Your task to perform on an android device: search for starred emails in the gmail app Image 0: 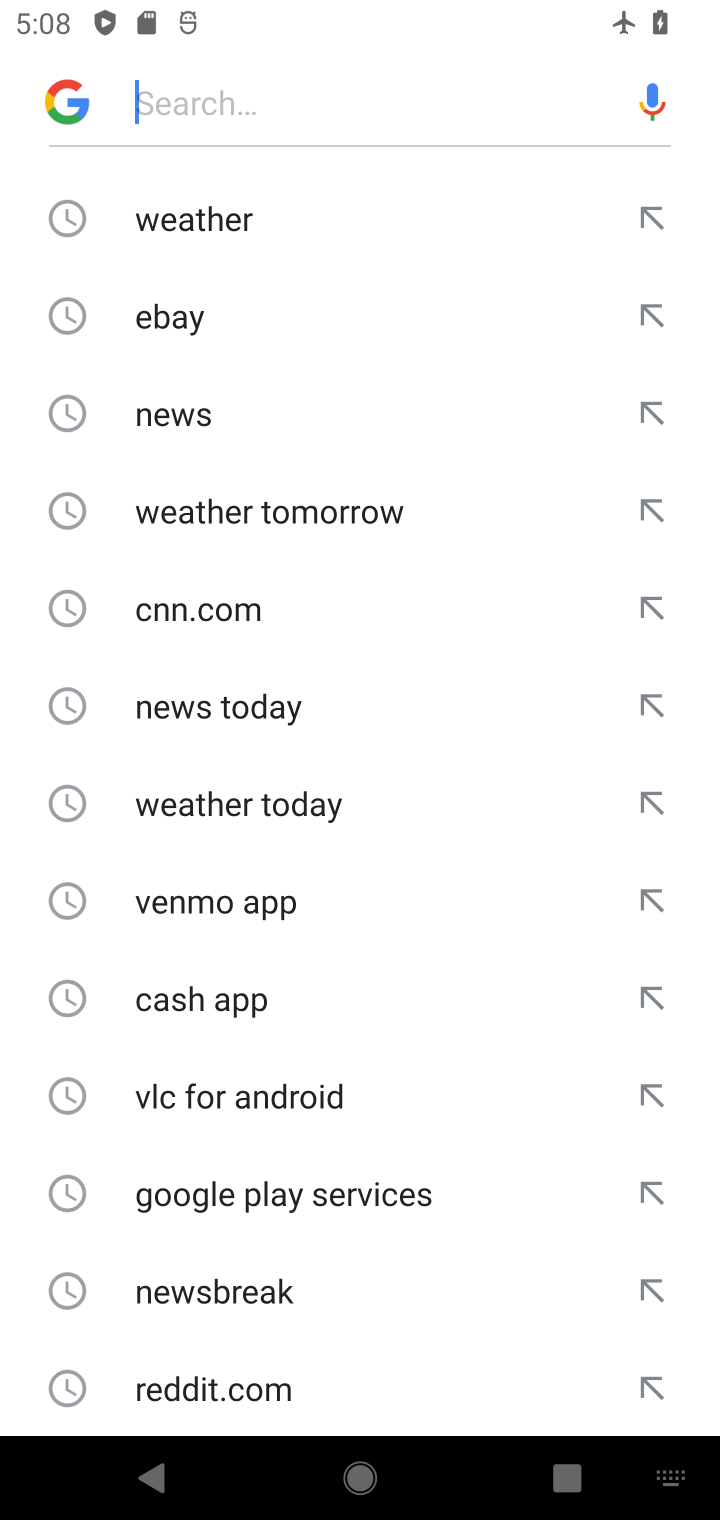
Step 0: press back button
Your task to perform on an android device: search for starred emails in the gmail app Image 1: 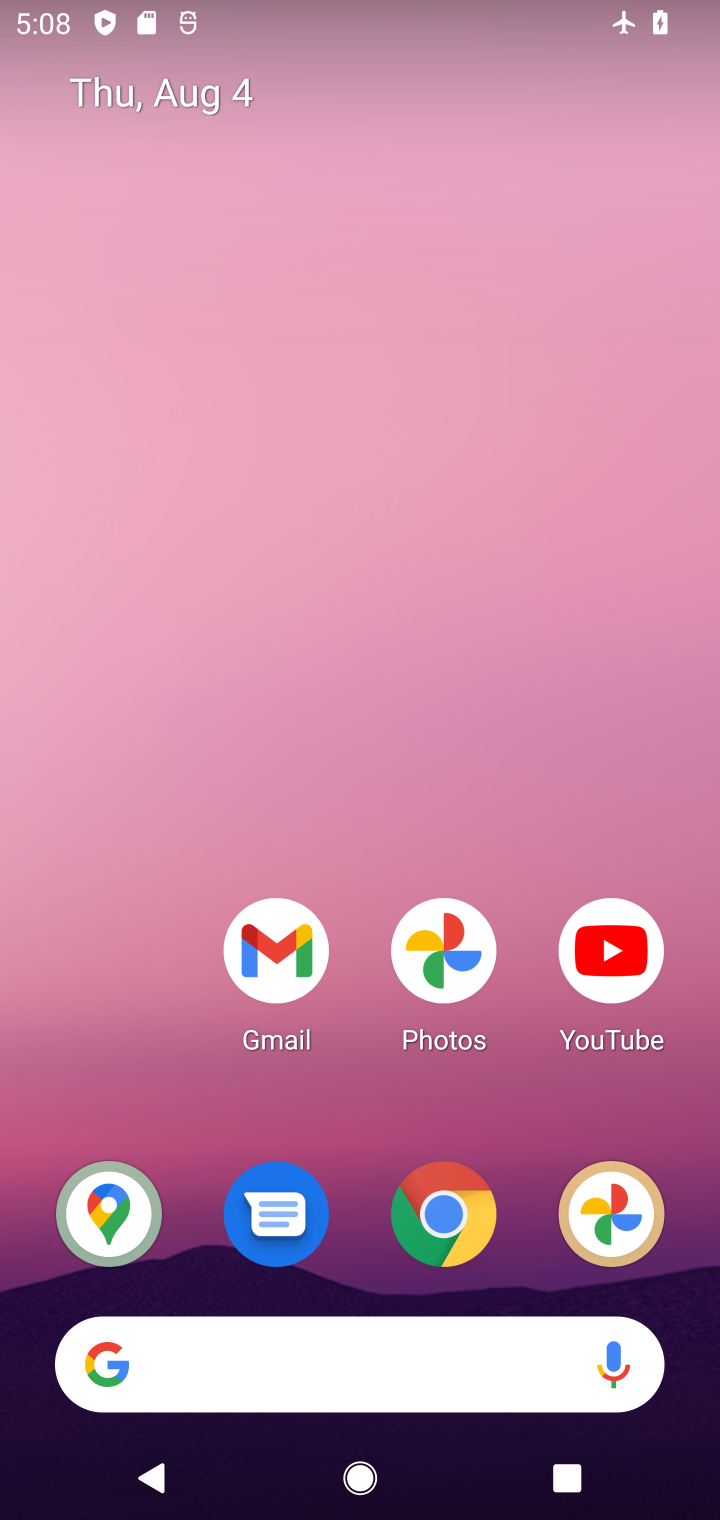
Step 1: drag from (533, 853) to (449, 92)
Your task to perform on an android device: search for starred emails in the gmail app Image 2: 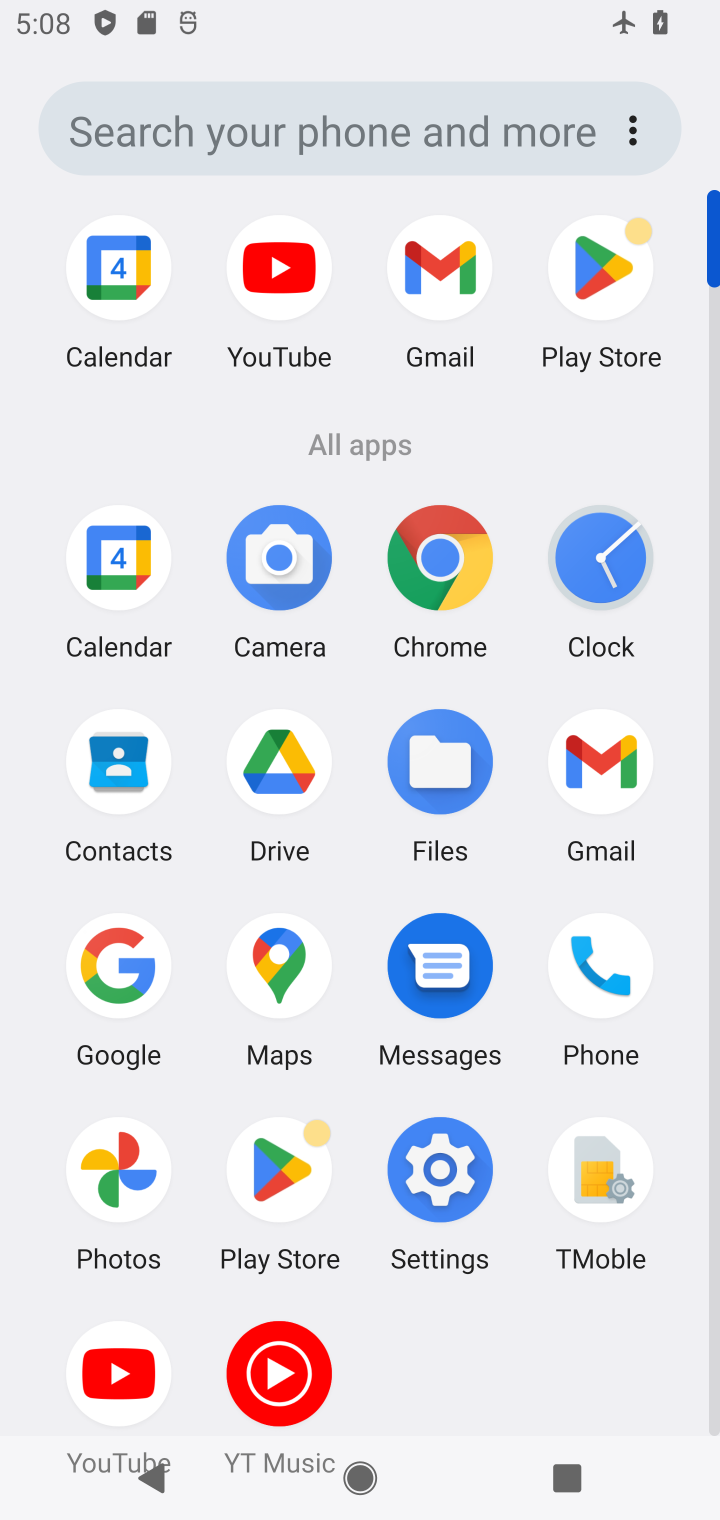
Step 2: click (463, 257)
Your task to perform on an android device: search for starred emails in the gmail app Image 3: 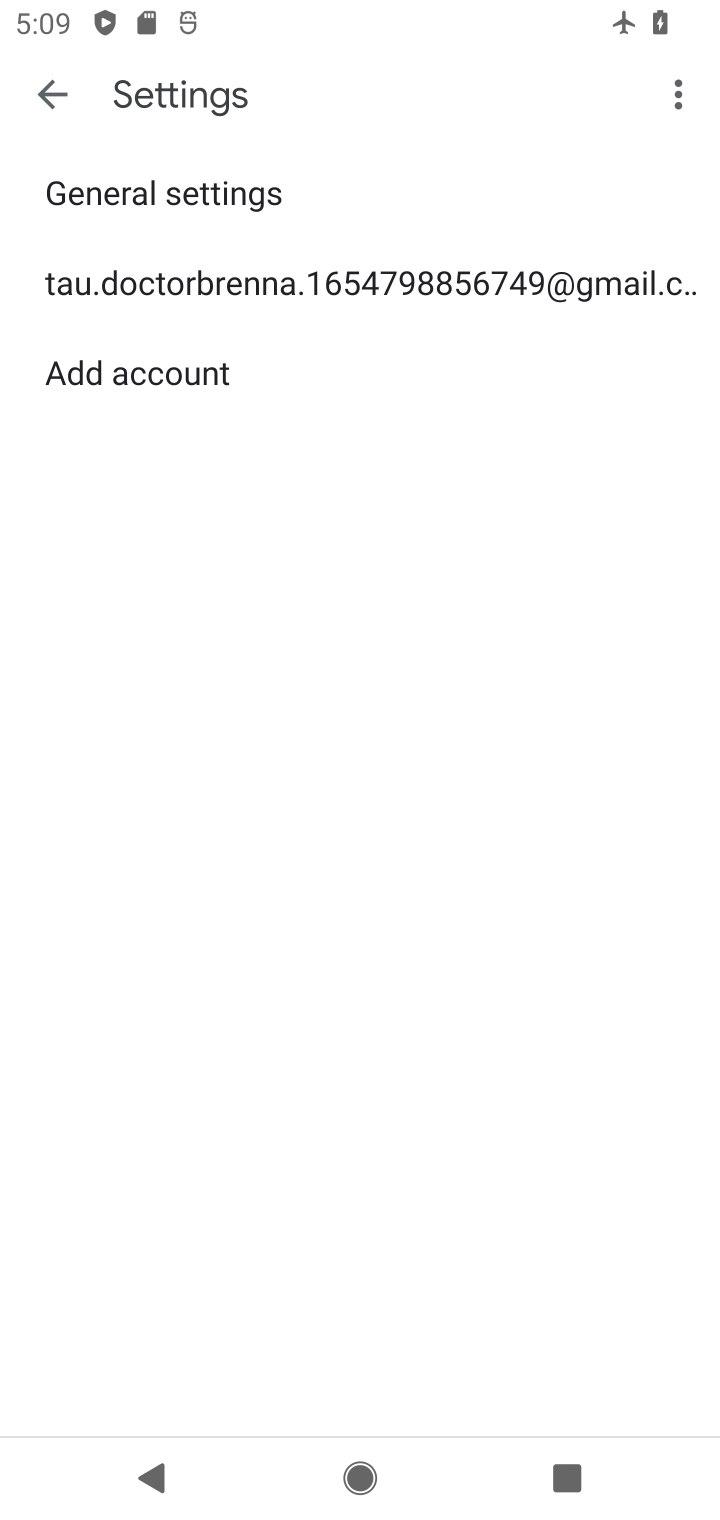
Step 3: click (49, 103)
Your task to perform on an android device: search for starred emails in the gmail app Image 4: 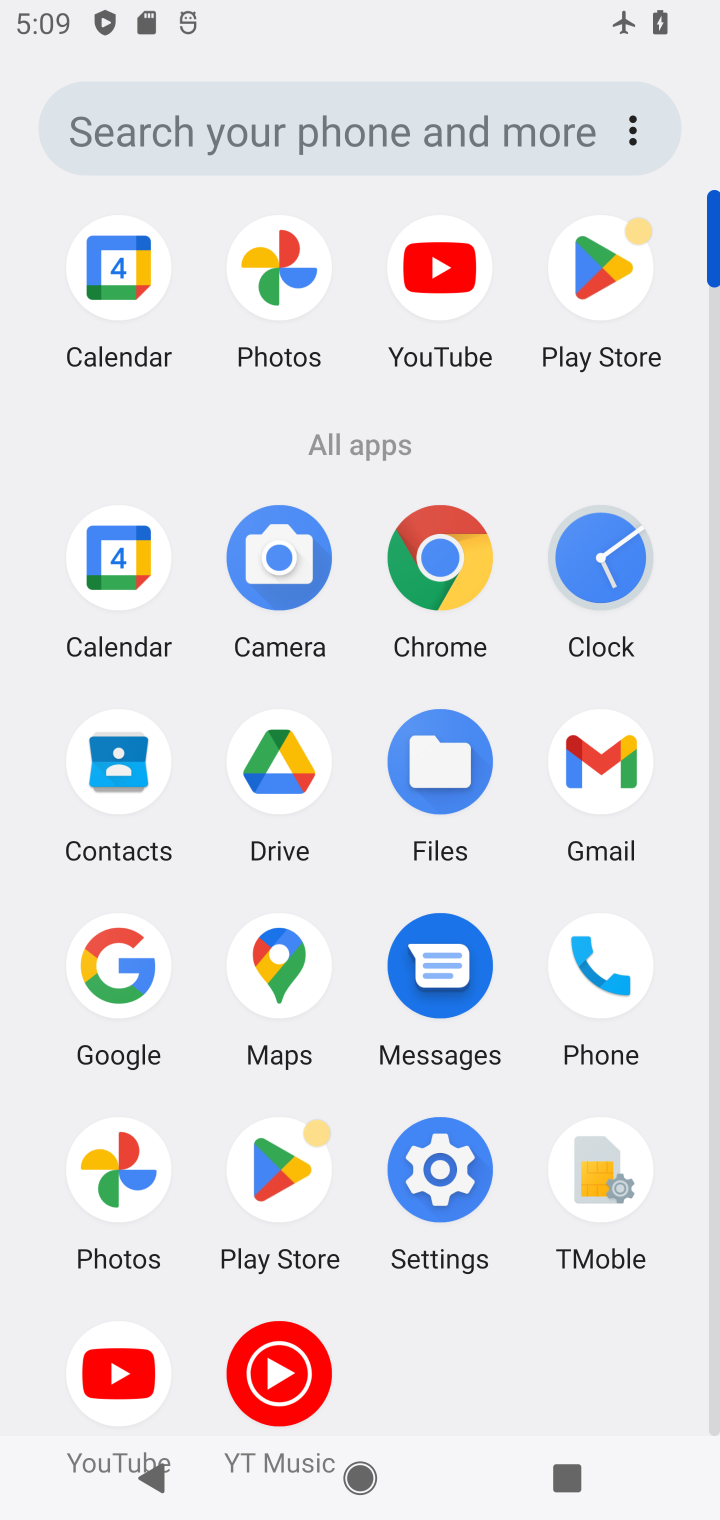
Step 4: click (629, 775)
Your task to perform on an android device: search for starred emails in the gmail app Image 5: 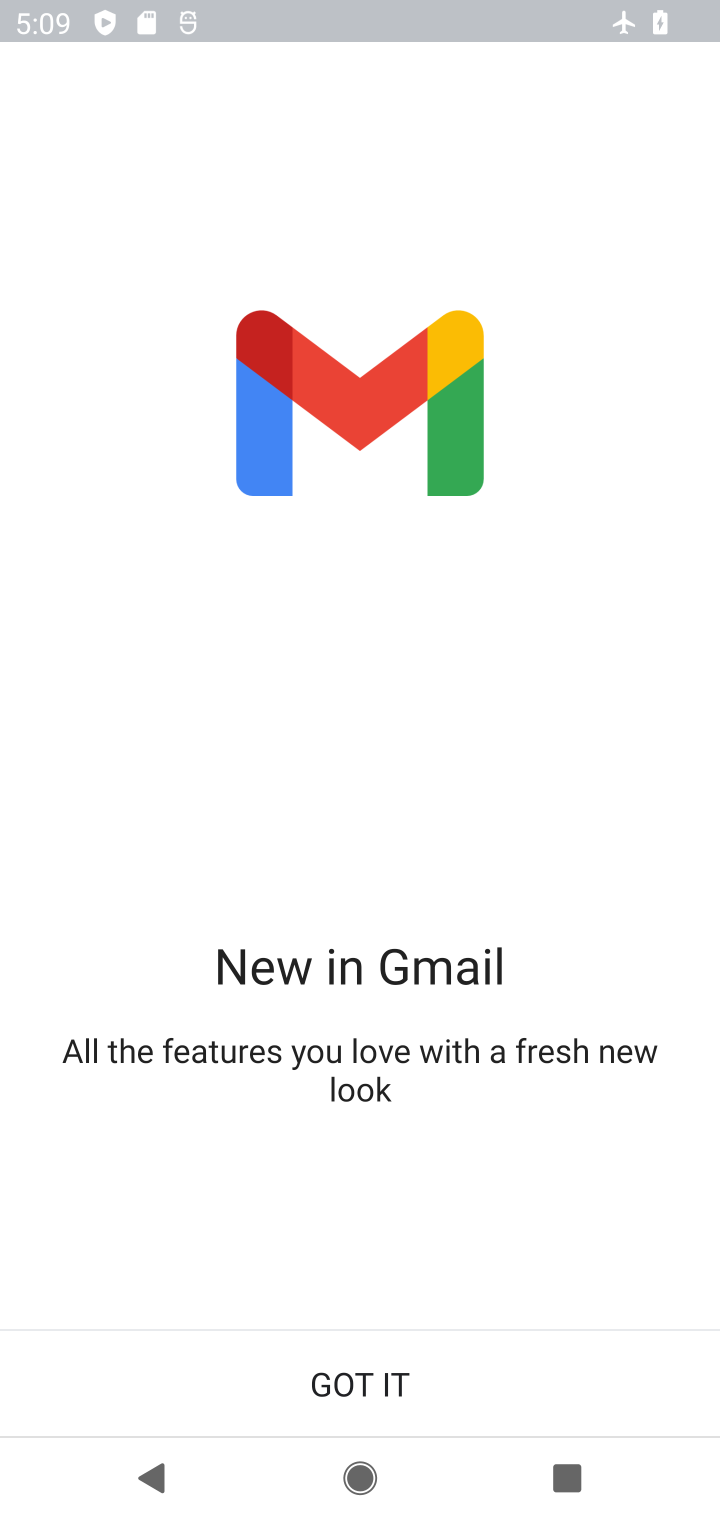
Step 5: click (423, 1373)
Your task to perform on an android device: search for starred emails in the gmail app Image 6: 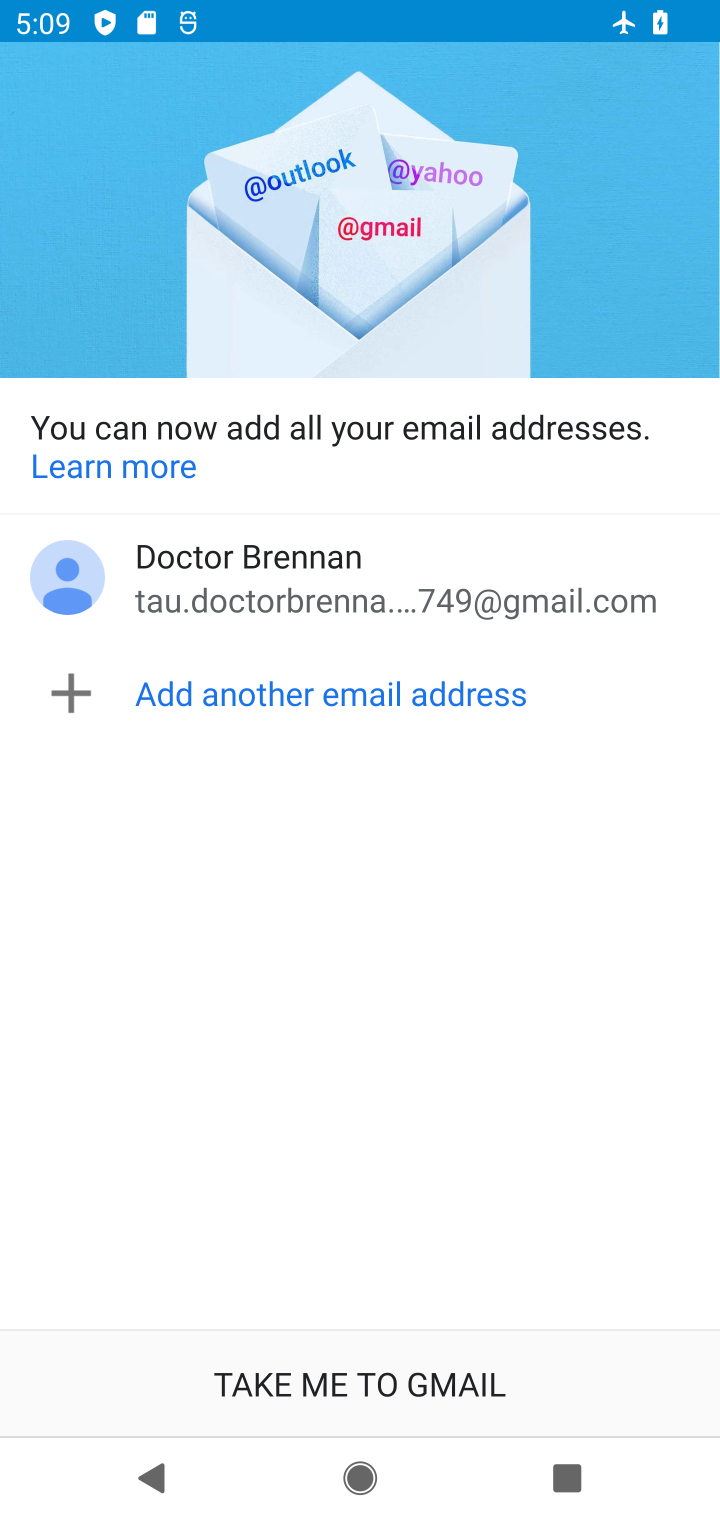
Step 6: click (423, 1373)
Your task to perform on an android device: search for starred emails in the gmail app Image 7: 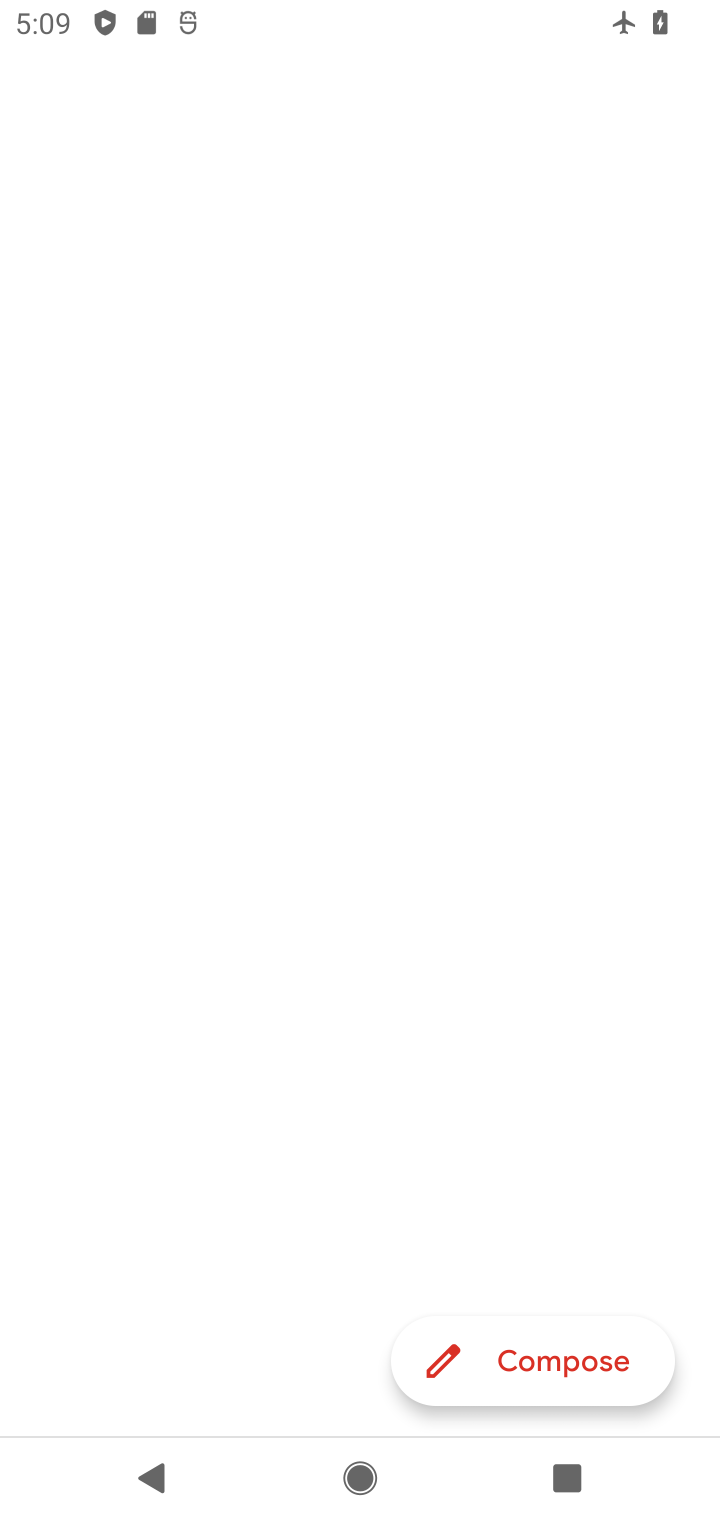
Step 7: click (513, 1359)
Your task to perform on an android device: search for starred emails in the gmail app Image 8: 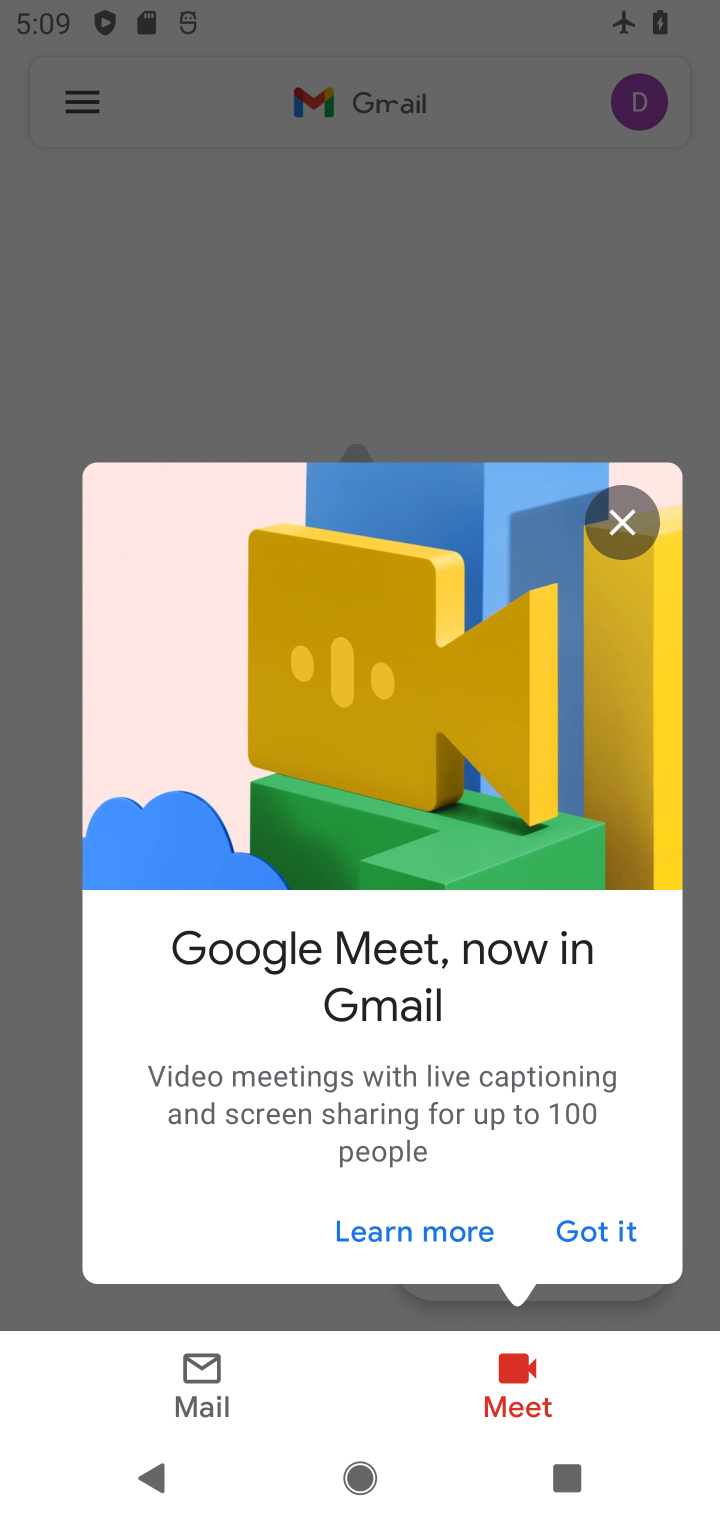
Step 8: click (227, 1412)
Your task to perform on an android device: search for starred emails in the gmail app Image 9: 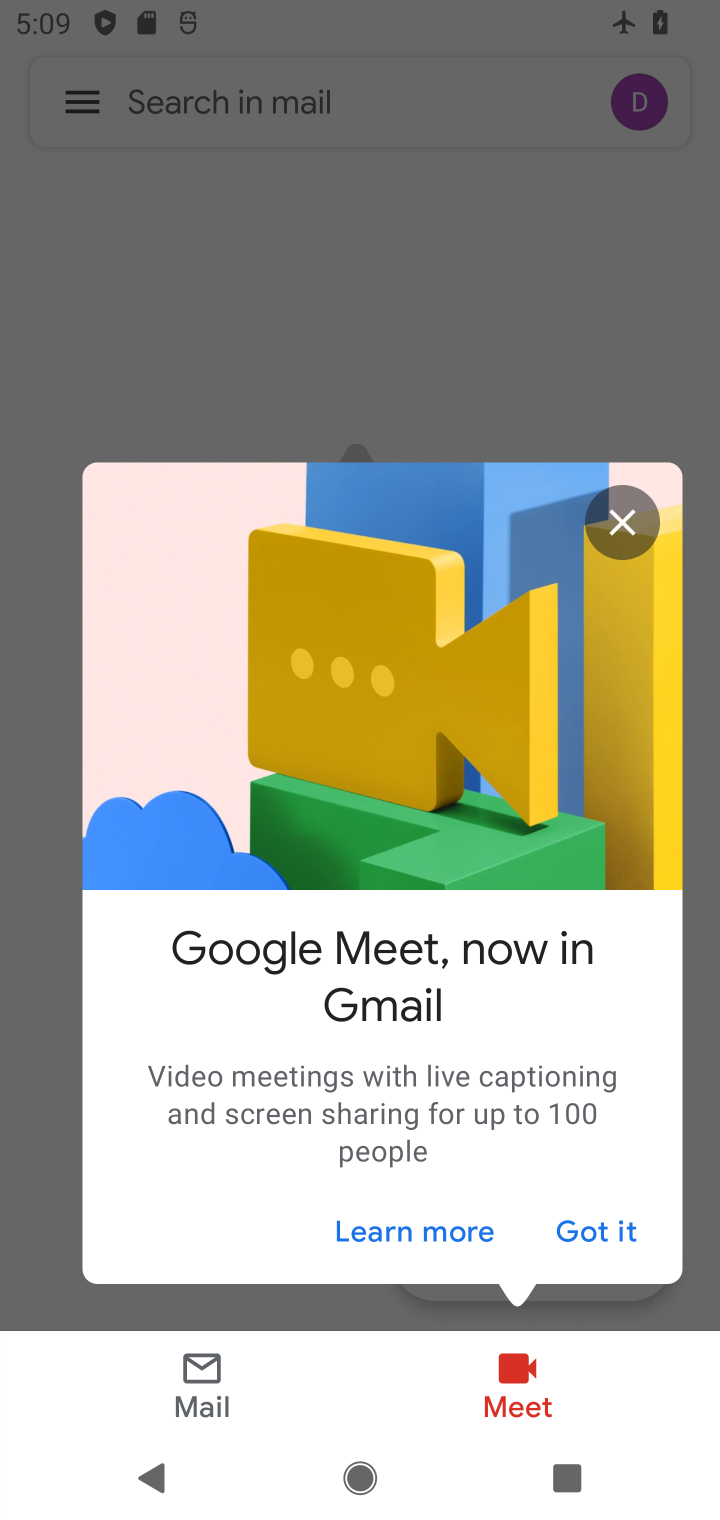
Step 9: click (646, 526)
Your task to perform on an android device: search for starred emails in the gmail app Image 10: 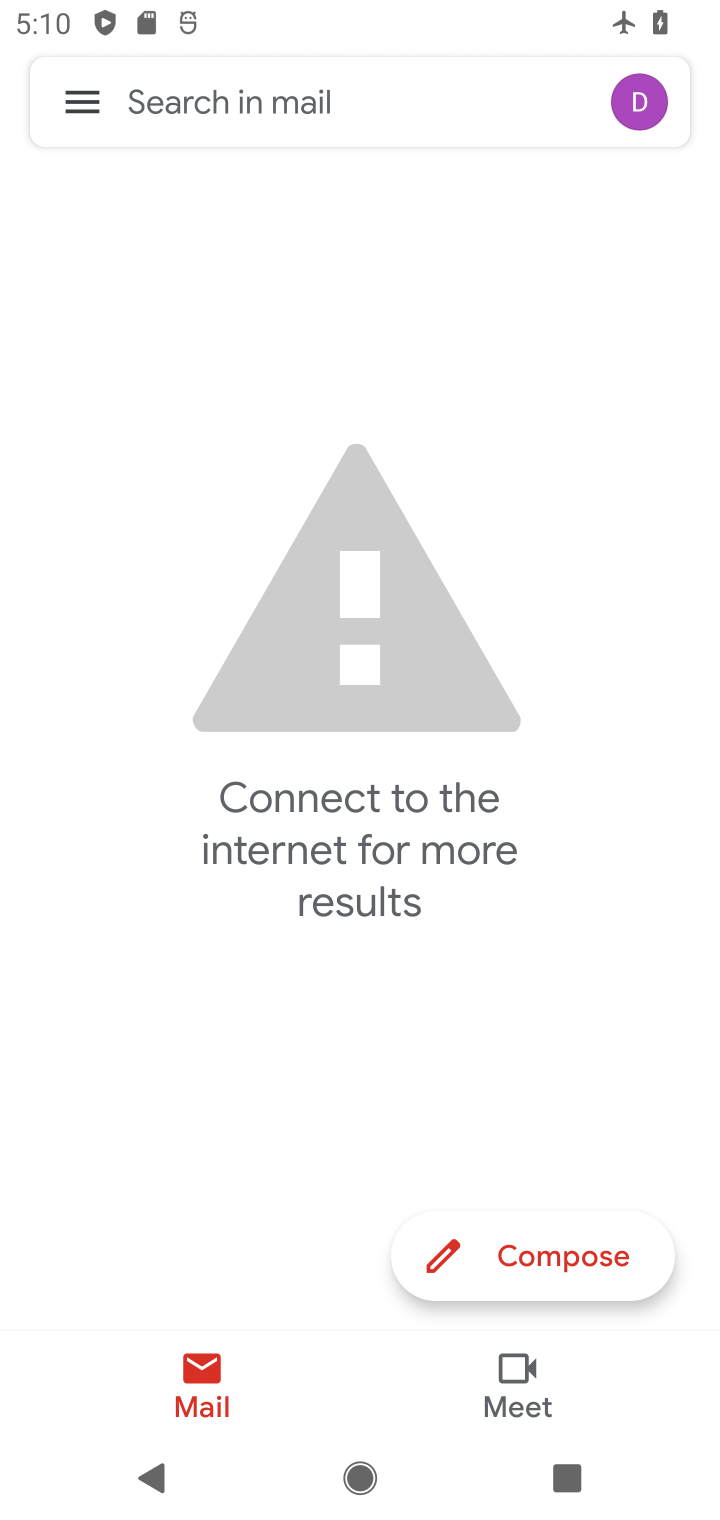
Step 10: click (89, 99)
Your task to perform on an android device: search for starred emails in the gmail app Image 11: 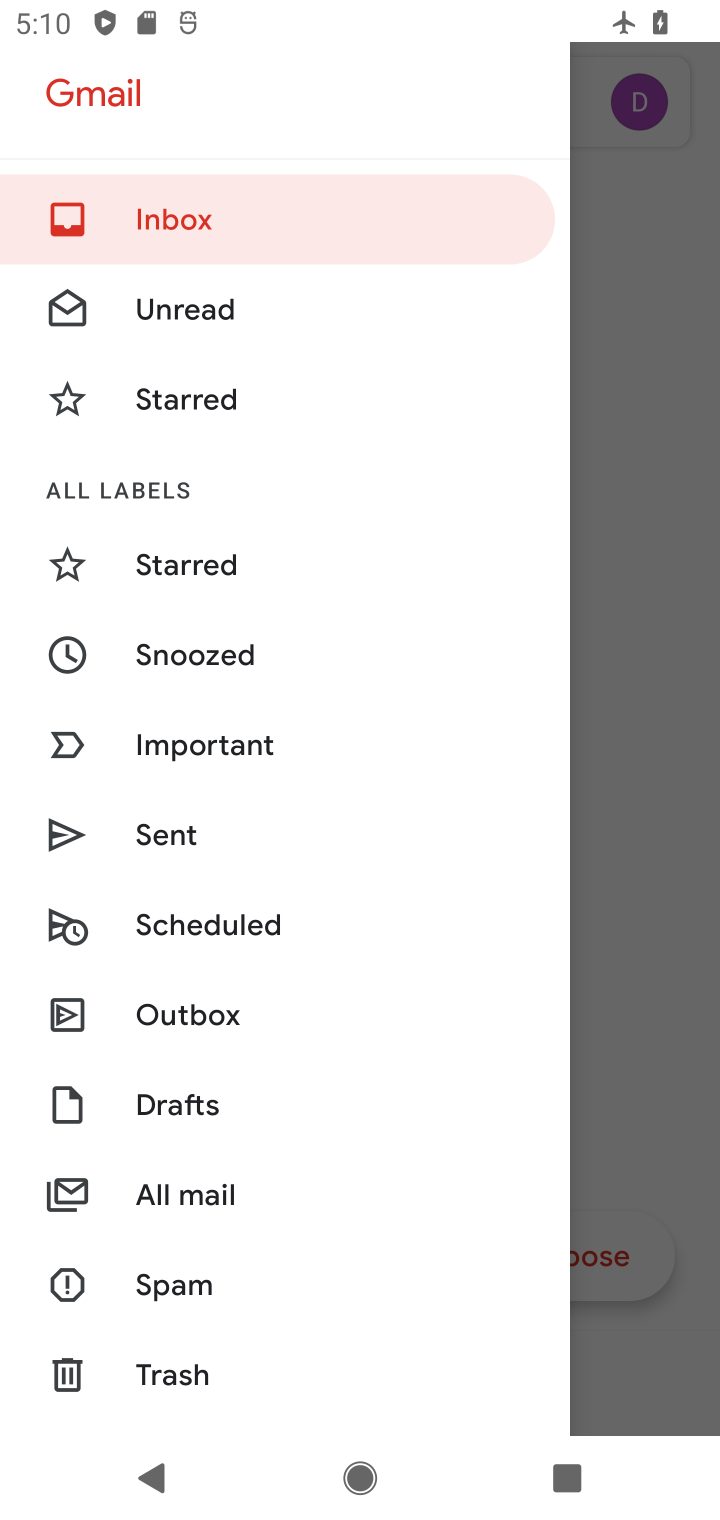
Step 11: click (200, 577)
Your task to perform on an android device: search for starred emails in the gmail app Image 12: 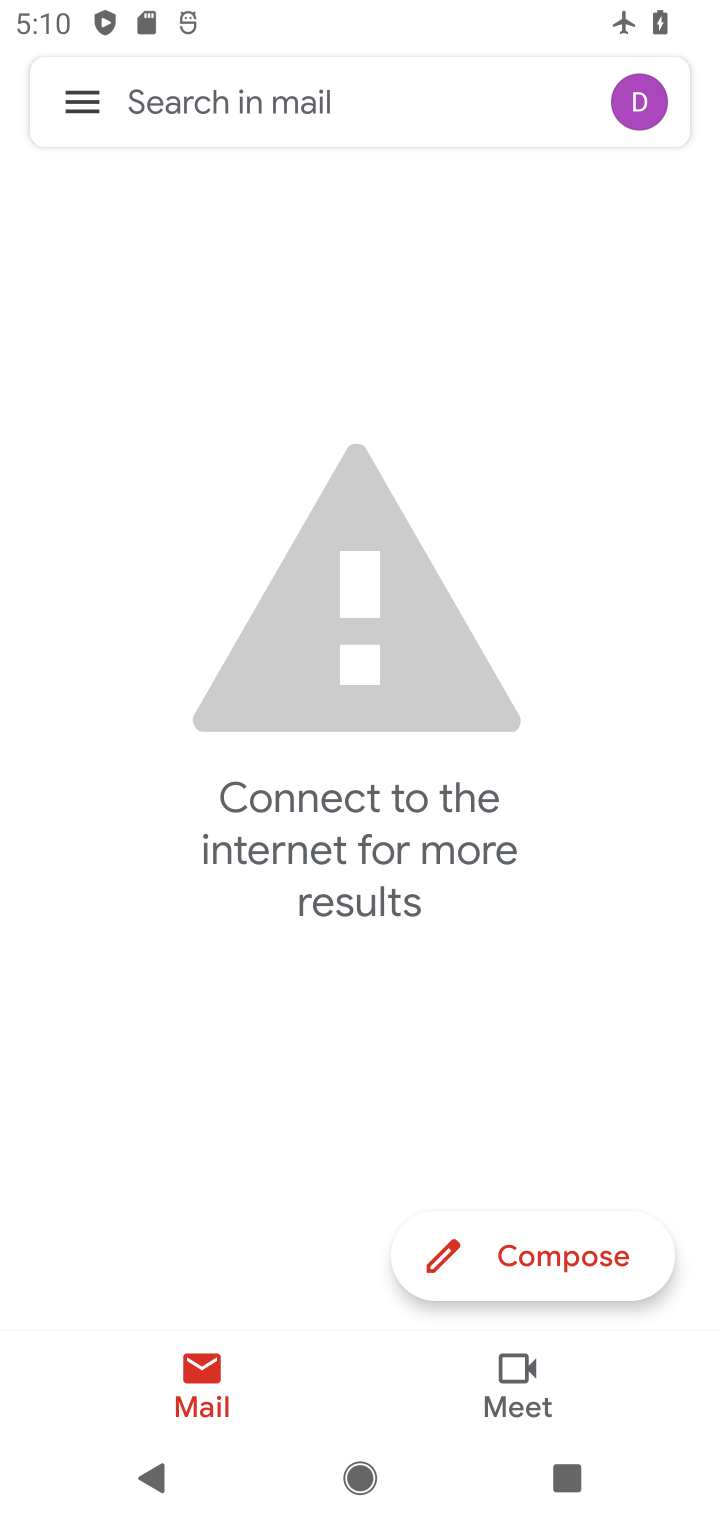
Step 12: task complete